Your task to perform on an android device: Go to sound settings Image 0: 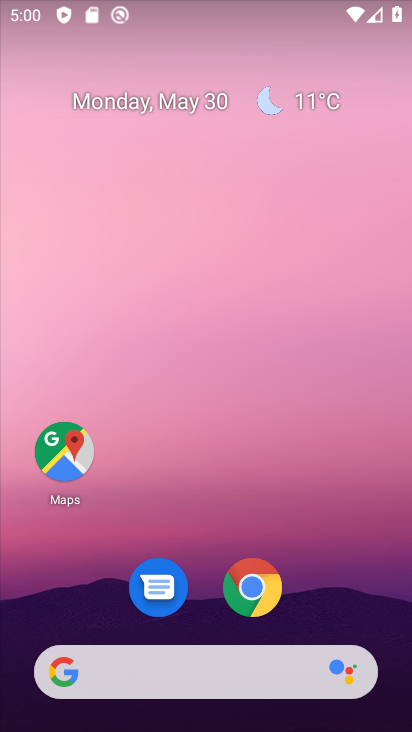
Step 0: press back button
Your task to perform on an android device: Go to sound settings Image 1: 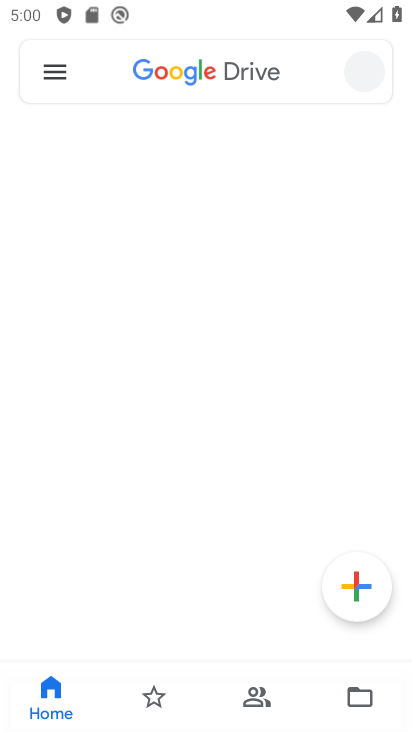
Step 1: press home button
Your task to perform on an android device: Go to sound settings Image 2: 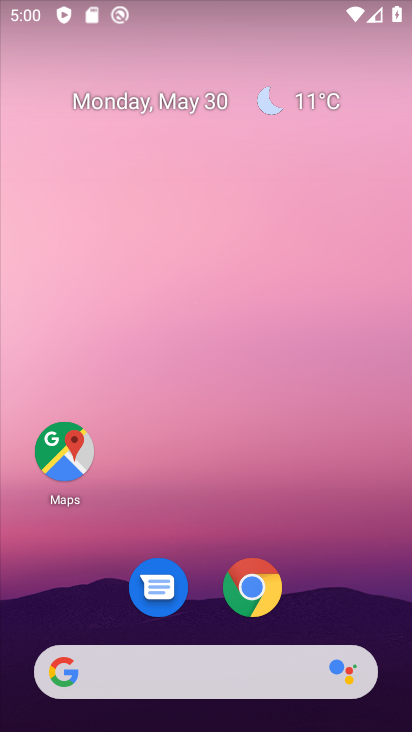
Step 2: drag from (318, 581) to (194, 3)
Your task to perform on an android device: Go to sound settings Image 3: 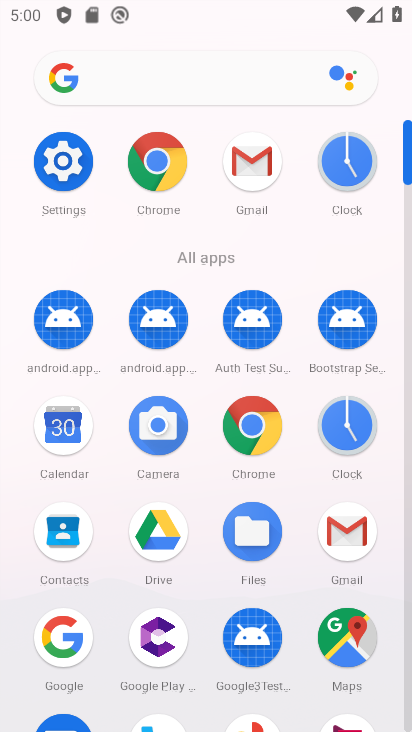
Step 3: drag from (19, 530) to (24, 247)
Your task to perform on an android device: Go to sound settings Image 4: 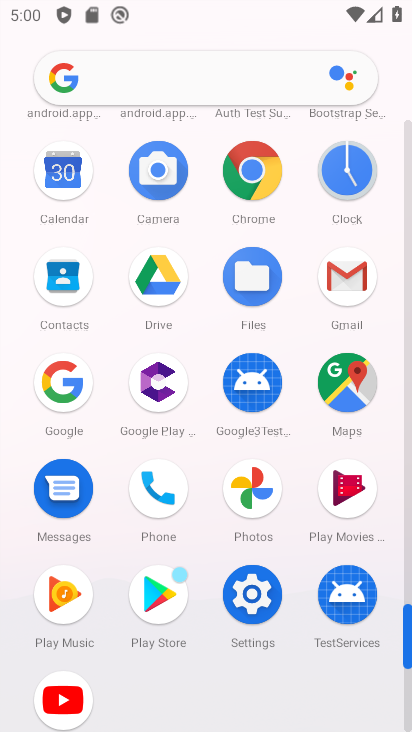
Step 4: click (246, 592)
Your task to perform on an android device: Go to sound settings Image 5: 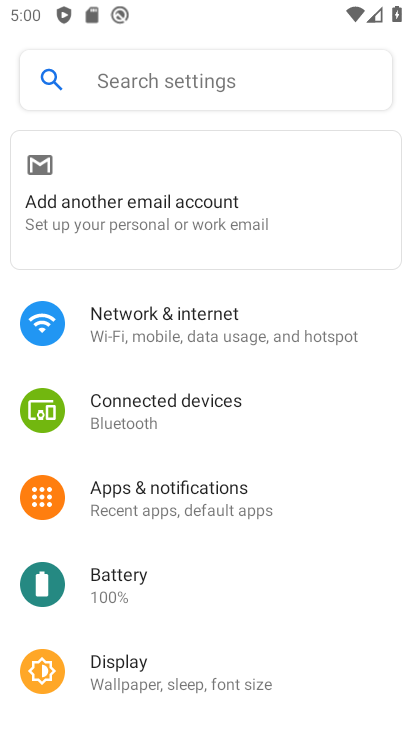
Step 5: drag from (208, 459) to (224, 298)
Your task to perform on an android device: Go to sound settings Image 6: 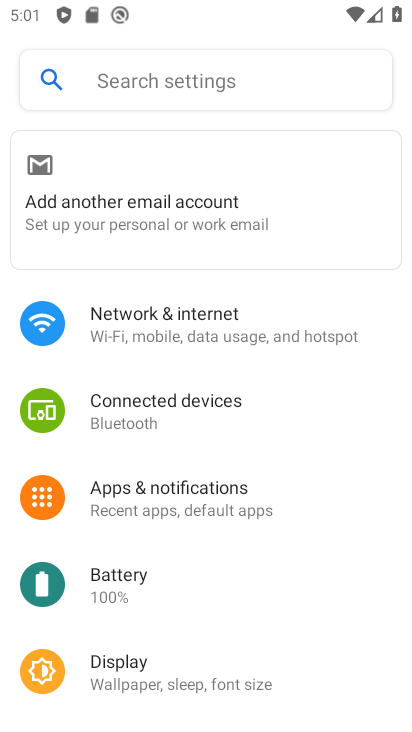
Step 6: drag from (229, 623) to (256, 299)
Your task to perform on an android device: Go to sound settings Image 7: 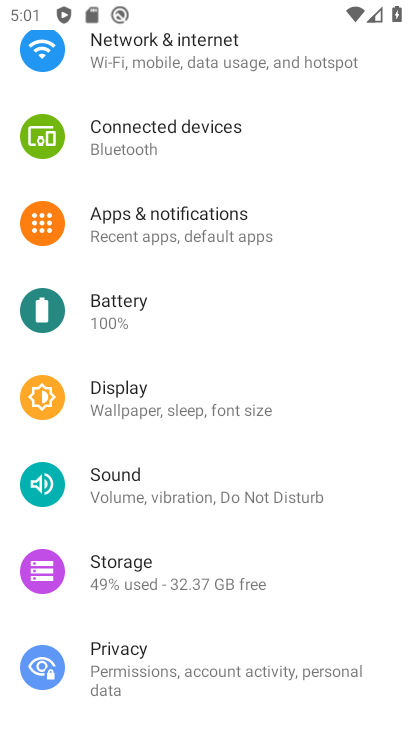
Step 7: click (138, 485)
Your task to perform on an android device: Go to sound settings Image 8: 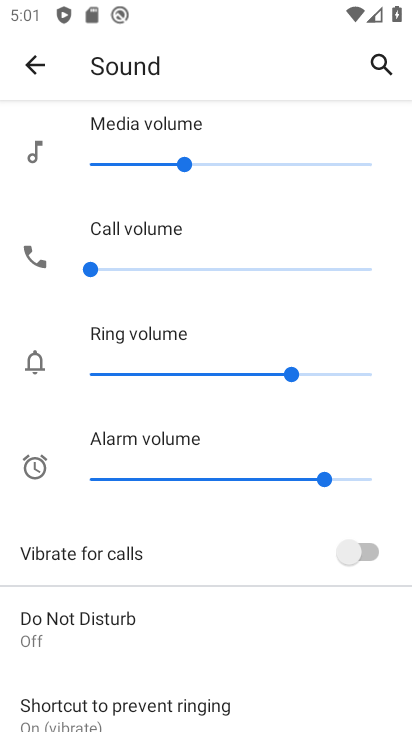
Step 8: drag from (205, 599) to (199, 129)
Your task to perform on an android device: Go to sound settings Image 9: 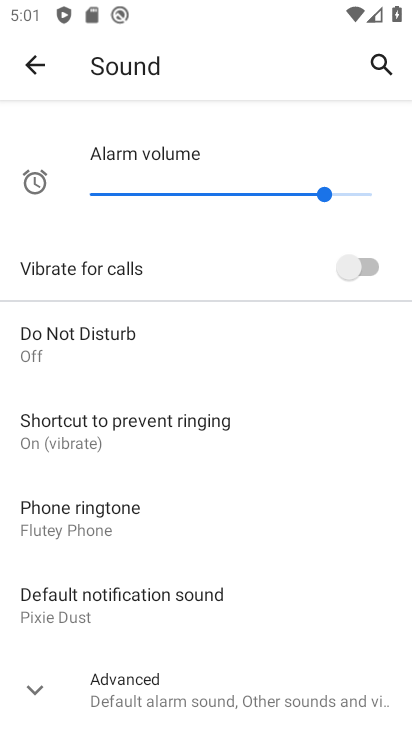
Step 9: drag from (190, 516) to (220, 318)
Your task to perform on an android device: Go to sound settings Image 10: 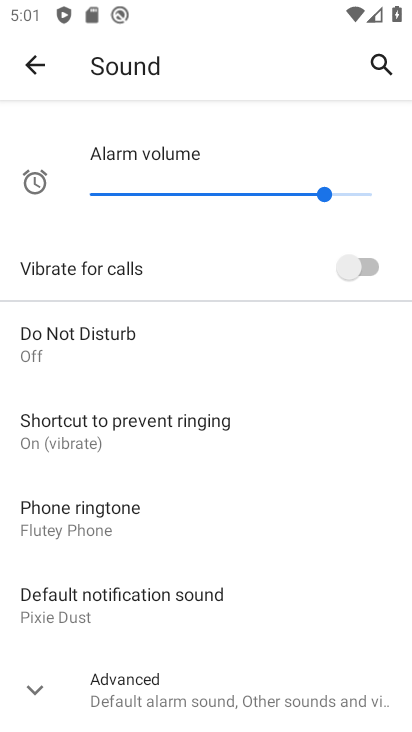
Step 10: click (46, 690)
Your task to perform on an android device: Go to sound settings Image 11: 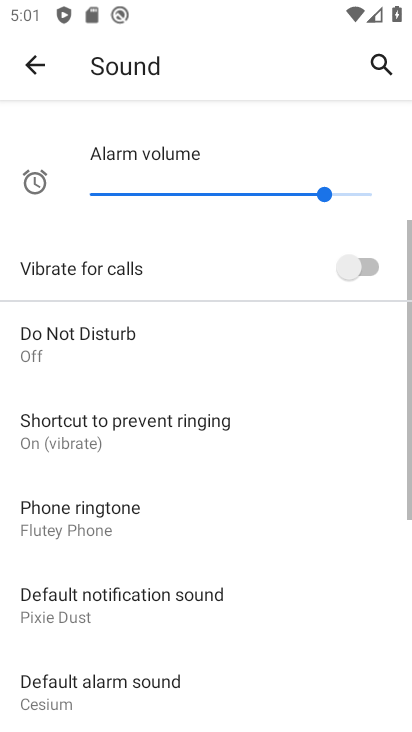
Step 11: task complete